Your task to perform on an android device: set the stopwatch Image 0: 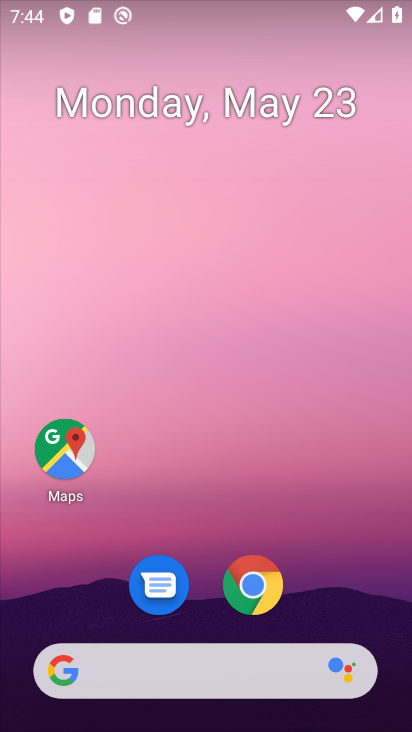
Step 0: drag from (210, 504) to (241, 0)
Your task to perform on an android device: set the stopwatch Image 1: 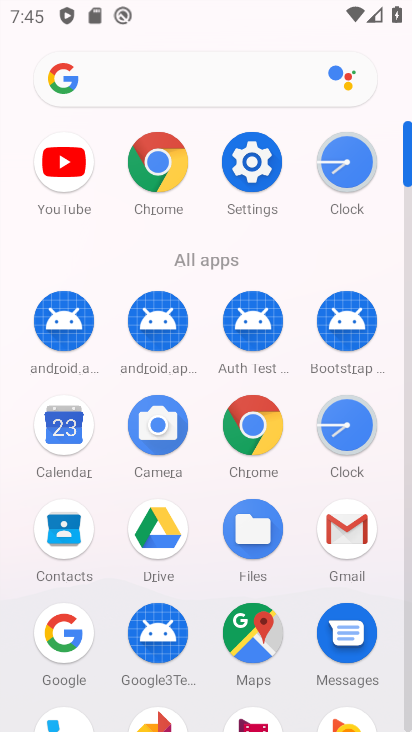
Step 1: click (356, 162)
Your task to perform on an android device: set the stopwatch Image 2: 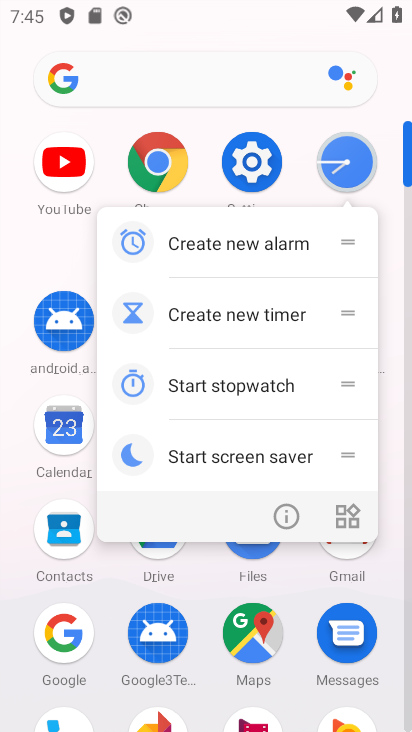
Step 2: click (344, 164)
Your task to perform on an android device: set the stopwatch Image 3: 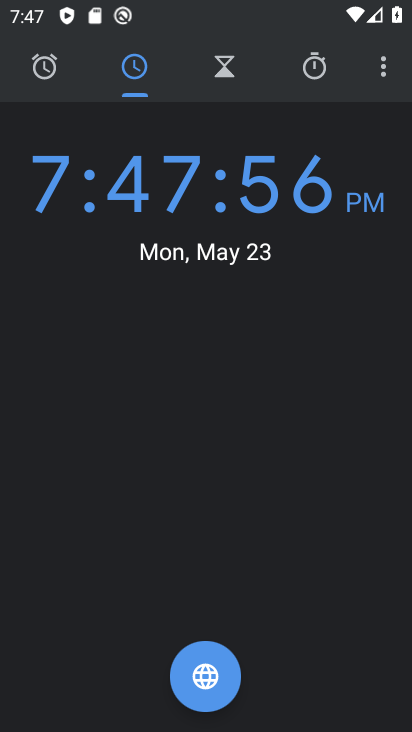
Step 3: click (313, 64)
Your task to perform on an android device: set the stopwatch Image 4: 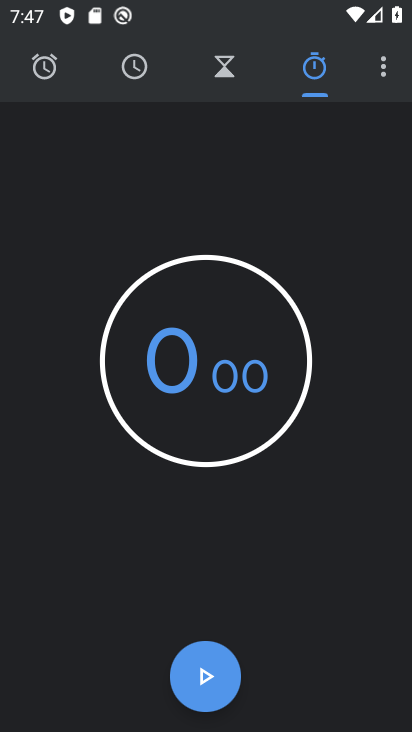
Step 4: task complete